Your task to perform on an android device: set the stopwatch Image 0: 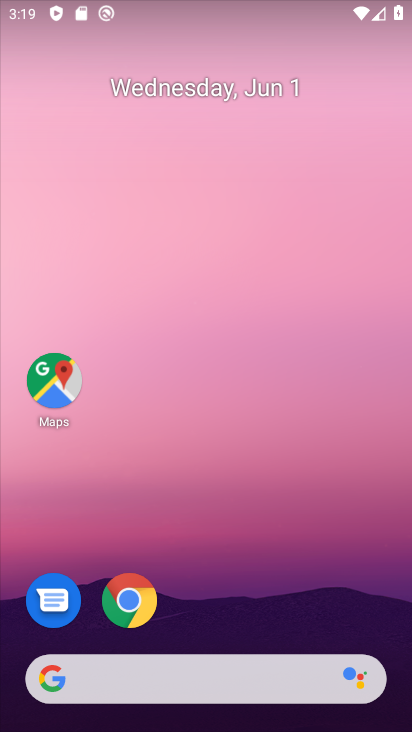
Step 0: drag from (193, 557) to (204, 129)
Your task to perform on an android device: set the stopwatch Image 1: 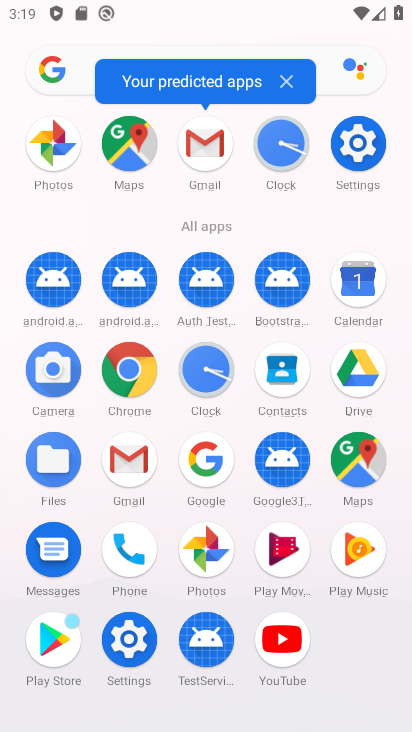
Step 1: drag from (195, 715) to (235, 279)
Your task to perform on an android device: set the stopwatch Image 2: 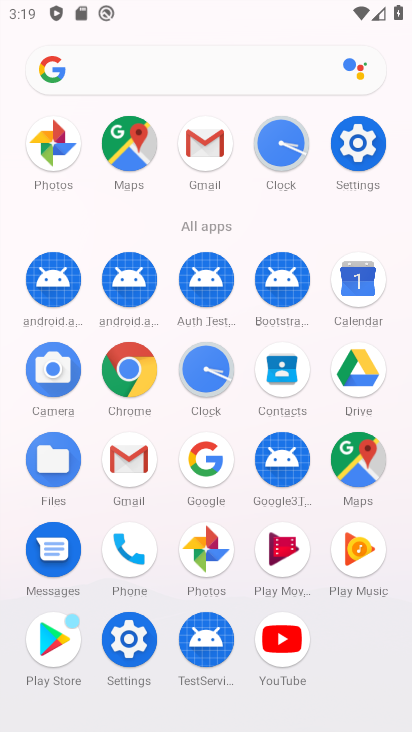
Step 2: click (205, 389)
Your task to perform on an android device: set the stopwatch Image 3: 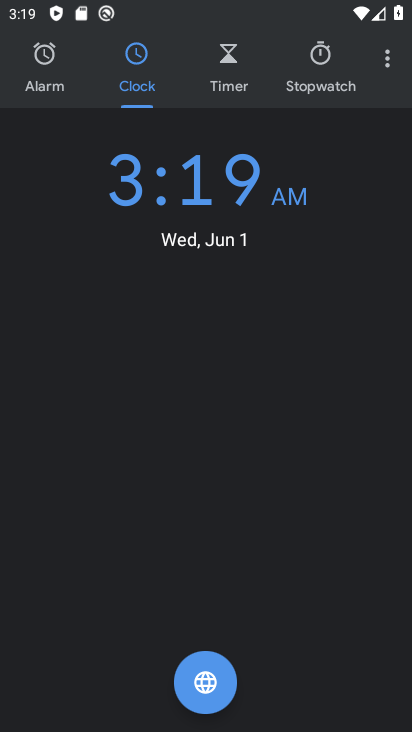
Step 3: click (325, 83)
Your task to perform on an android device: set the stopwatch Image 4: 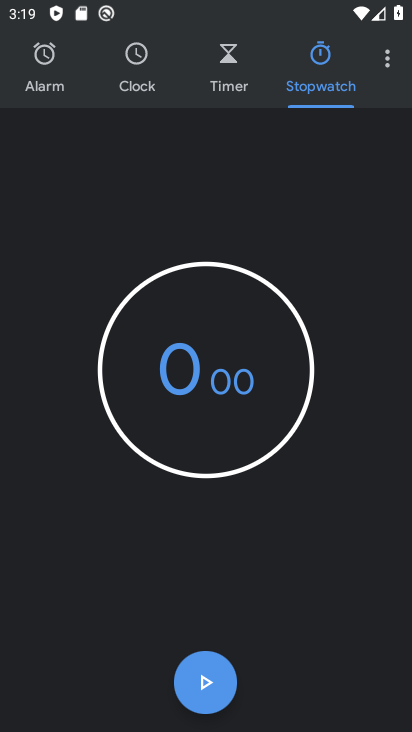
Step 4: task complete